Your task to perform on an android device: Turn off the flashlight Image 0: 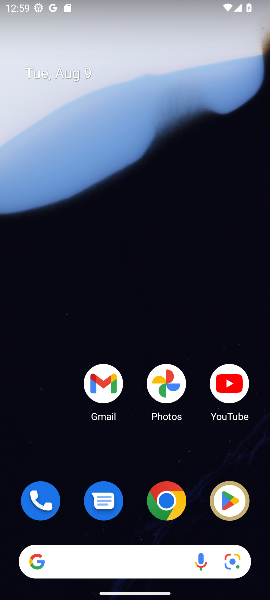
Step 0: drag from (146, 454) to (196, 9)
Your task to perform on an android device: Turn off the flashlight Image 1: 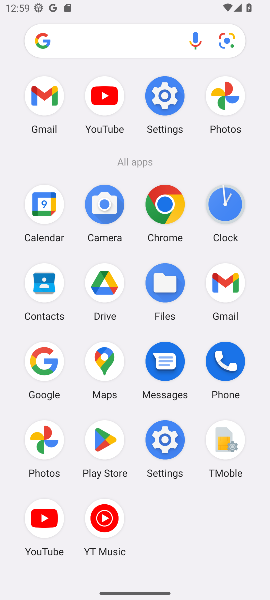
Step 1: click (167, 96)
Your task to perform on an android device: Turn off the flashlight Image 2: 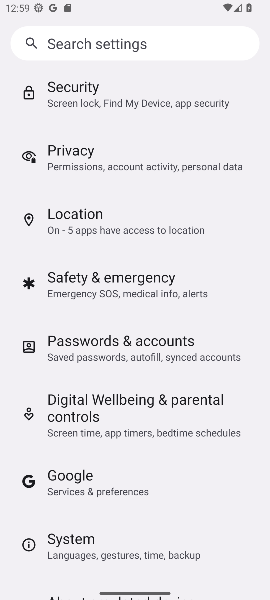
Step 2: task complete